Your task to perform on an android device: Set the phone to "Do not disturb". Image 0: 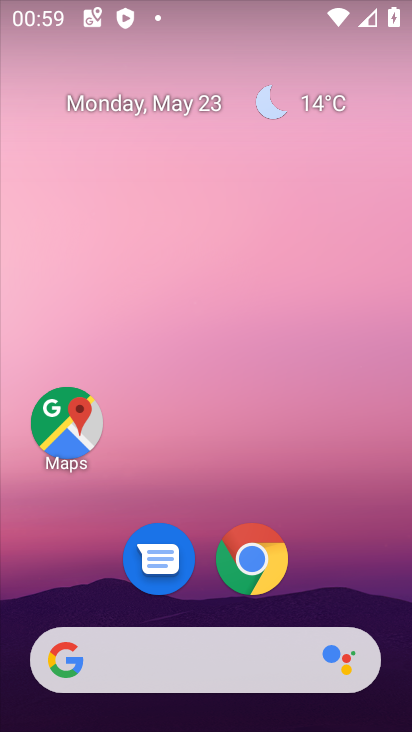
Step 0: drag from (360, 554) to (377, 18)
Your task to perform on an android device: Set the phone to "Do not disturb". Image 1: 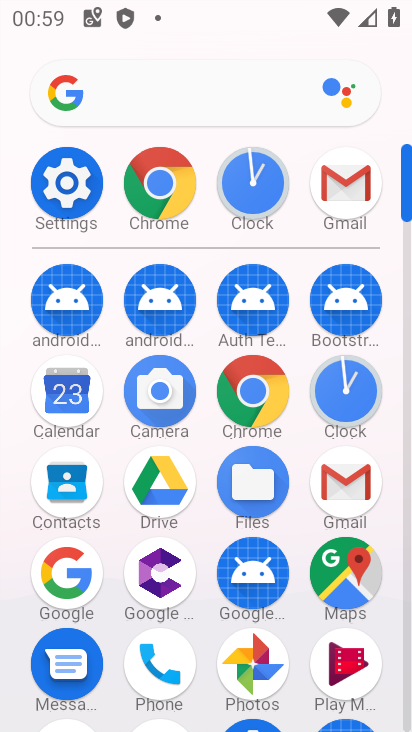
Step 1: click (65, 190)
Your task to perform on an android device: Set the phone to "Do not disturb". Image 2: 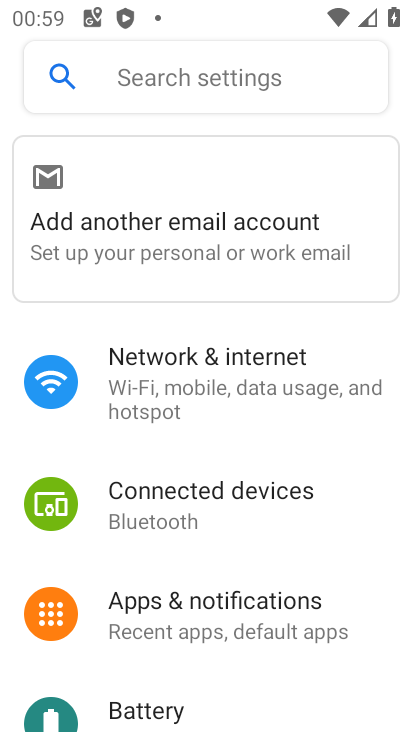
Step 2: drag from (298, 635) to (286, 157)
Your task to perform on an android device: Set the phone to "Do not disturb". Image 3: 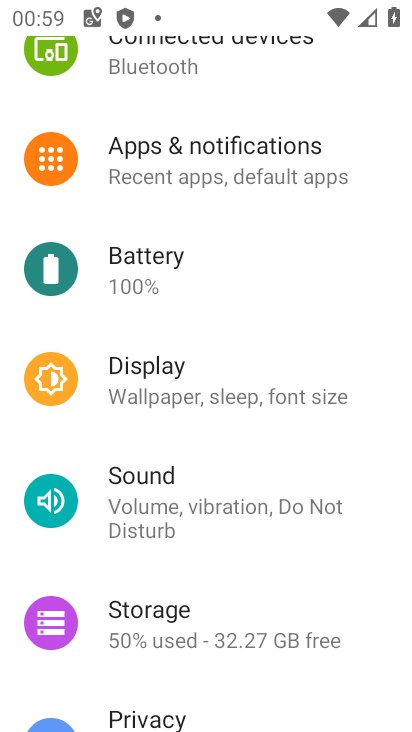
Step 3: click (124, 490)
Your task to perform on an android device: Set the phone to "Do not disturb". Image 4: 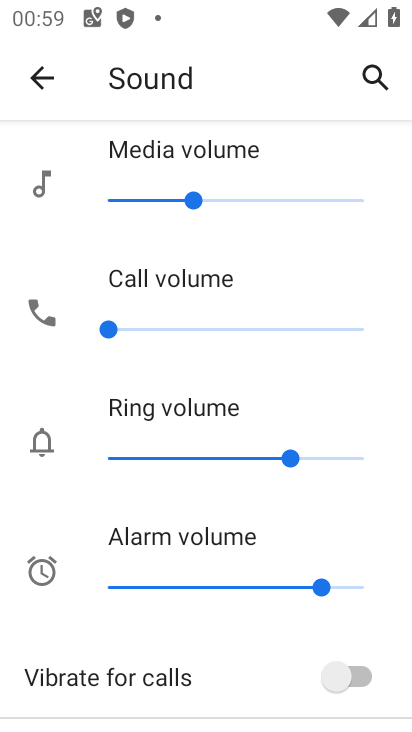
Step 4: drag from (216, 626) to (249, 213)
Your task to perform on an android device: Set the phone to "Do not disturb". Image 5: 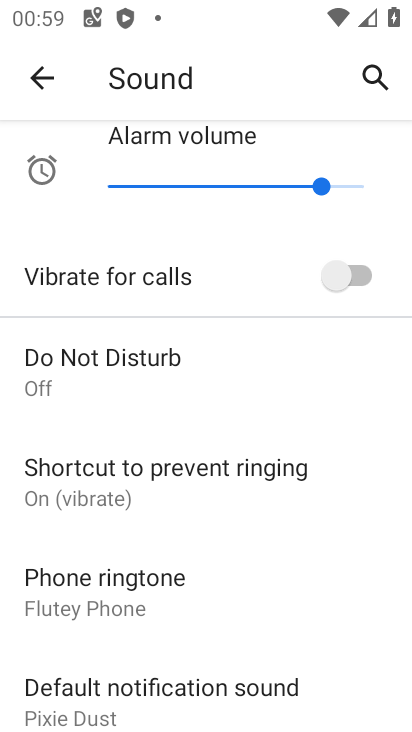
Step 5: click (68, 380)
Your task to perform on an android device: Set the phone to "Do not disturb". Image 6: 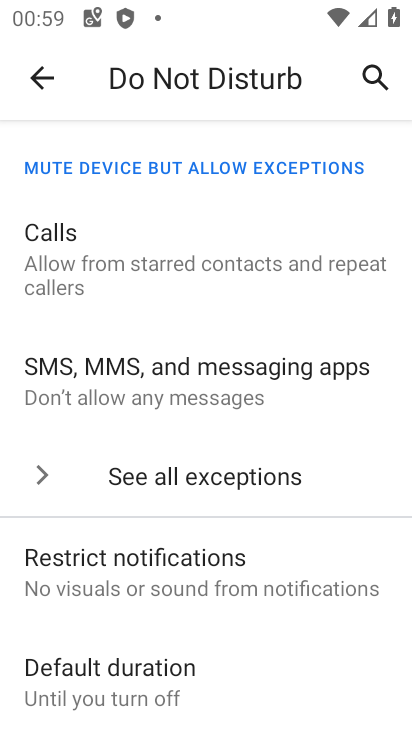
Step 6: drag from (195, 544) to (208, 39)
Your task to perform on an android device: Set the phone to "Do not disturb". Image 7: 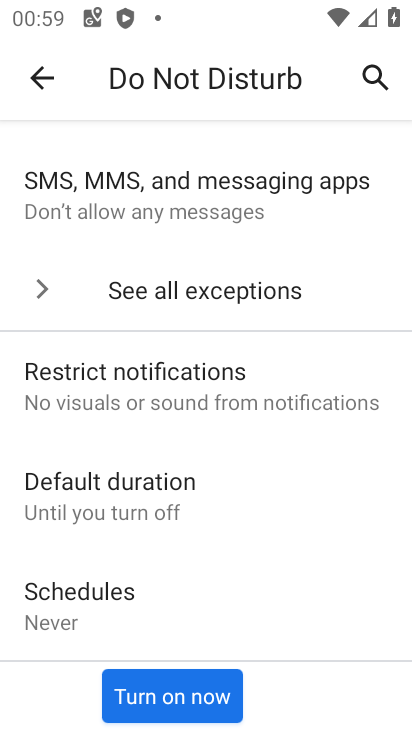
Step 7: click (136, 697)
Your task to perform on an android device: Set the phone to "Do not disturb". Image 8: 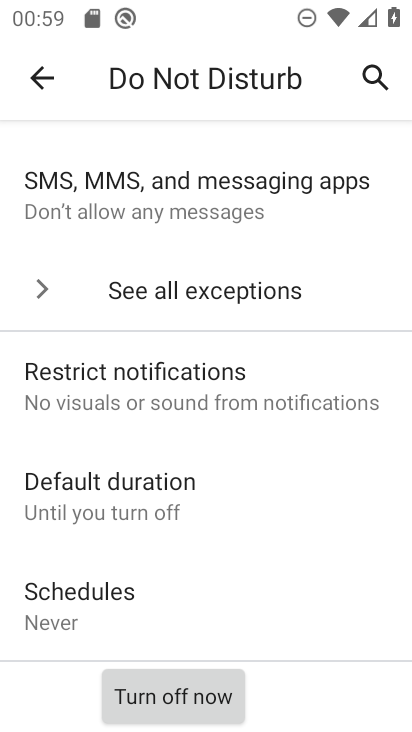
Step 8: task complete